Your task to perform on an android device: open chrome privacy settings Image 0: 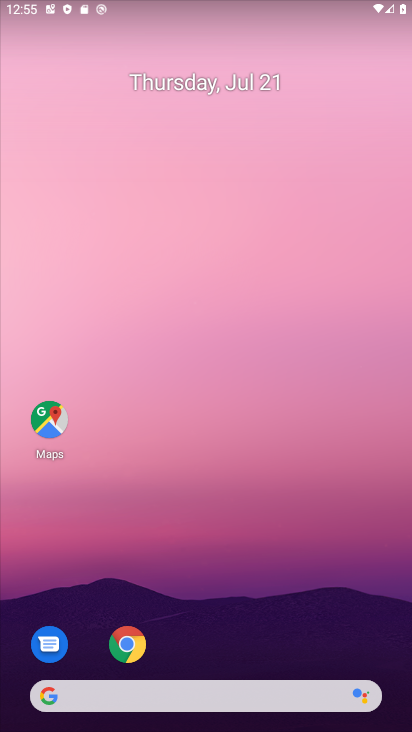
Step 0: click (124, 638)
Your task to perform on an android device: open chrome privacy settings Image 1: 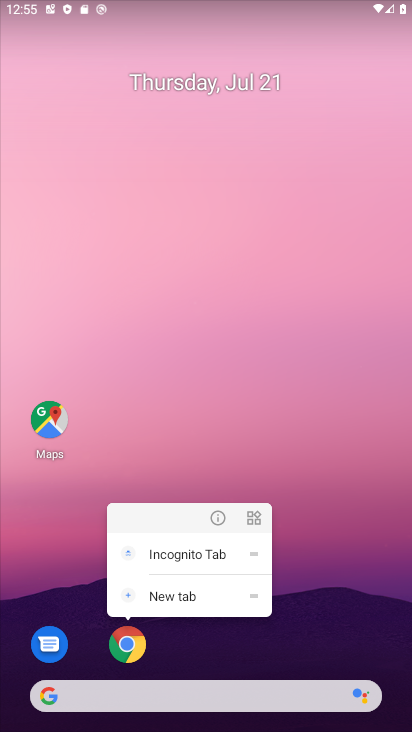
Step 1: click (124, 632)
Your task to perform on an android device: open chrome privacy settings Image 2: 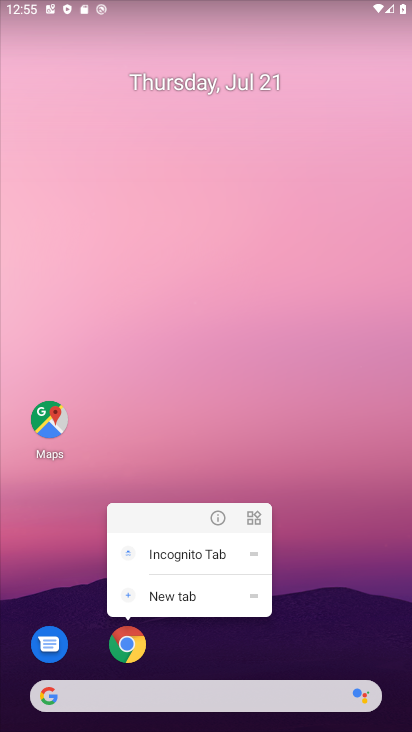
Step 2: click (128, 617)
Your task to perform on an android device: open chrome privacy settings Image 3: 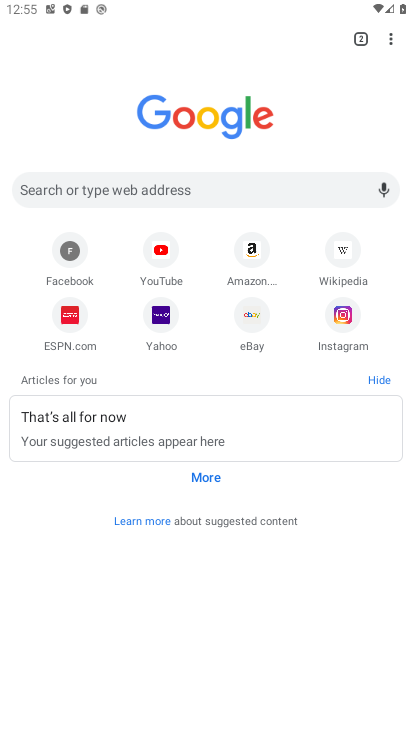
Step 3: drag from (384, 45) to (267, 324)
Your task to perform on an android device: open chrome privacy settings Image 4: 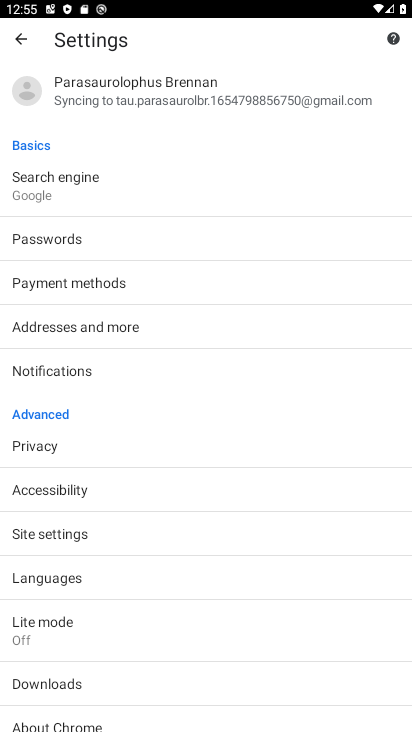
Step 4: click (61, 455)
Your task to perform on an android device: open chrome privacy settings Image 5: 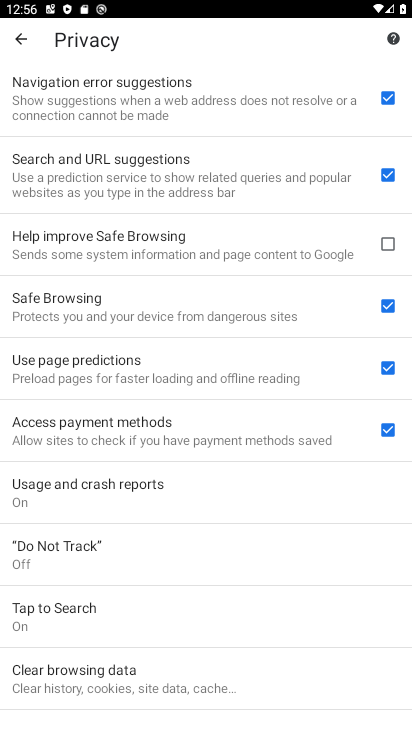
Step 5: task complete